Your task to perform on an android device: toggle show notifications on the lock screen Image 0: 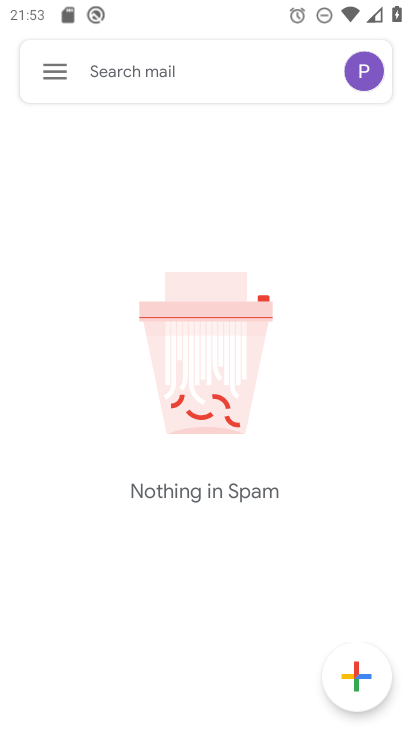
Step 0: press home button
Your task to perform on an android device: toggle show notifications on the lock screen Image 1: 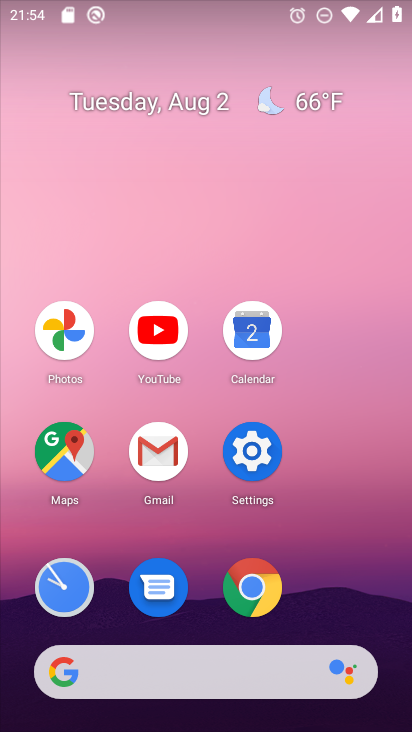
Step 1: click (248, 456)
Your task to perform on an android device: toggle show notifications on the lock screen Image 2: 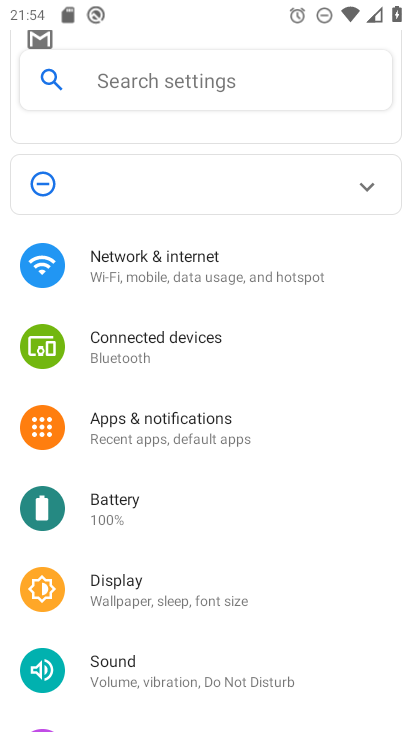
Step 2: click (174, 417)
Your task to perform on an android device: toggle show notifications on the lock screen Image 3: 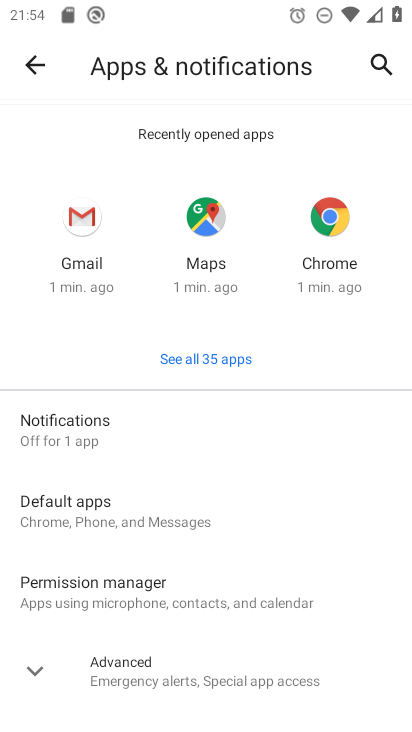
Step 3: click (126, 414)
Your task to perform on an android device: toggle show notifications on the lock screen Image 4: 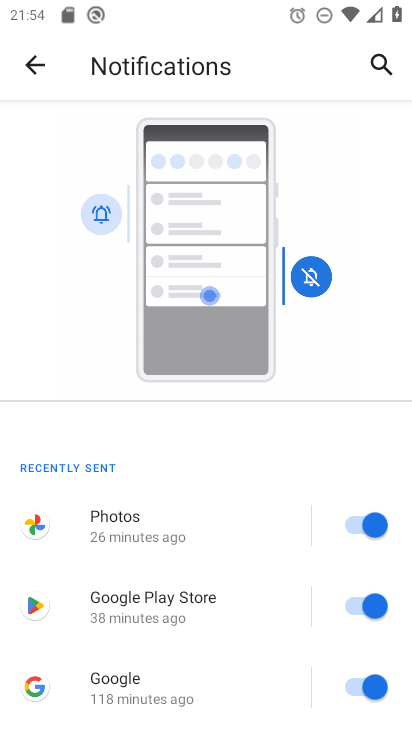
Step 4: drag from (258, 588) to (198, 165)
Your task to perform on an android device: toggle show notifications on the lock screen Image 5: 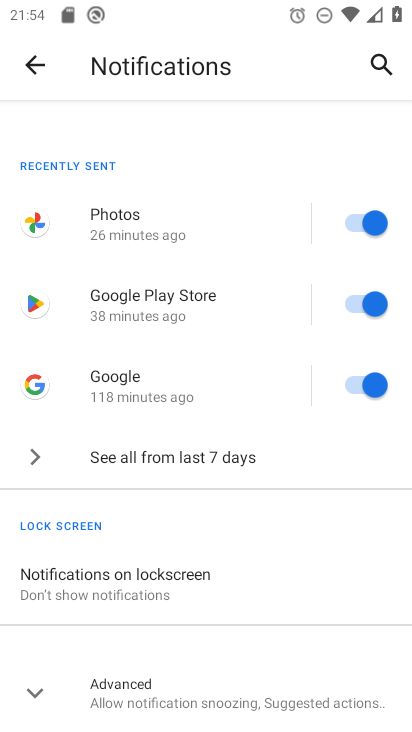
Step 5: click (146, 571)
Your task to perform on an android device: toggle show notifications on the lock screen Image 6: 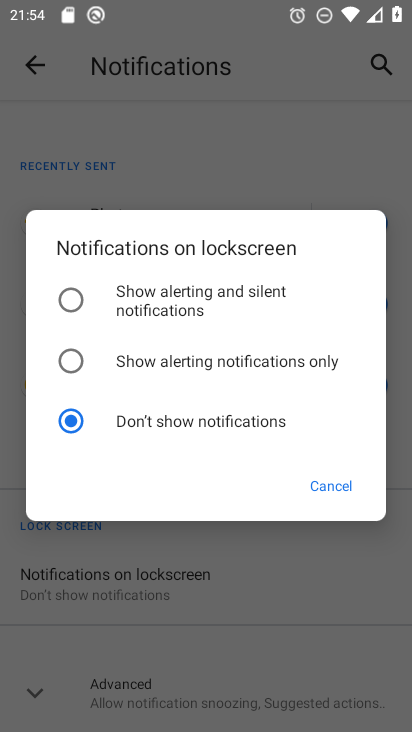
Step 6: click (67, 294)
Your task to perform on an android device: toggle show notifications on the lock screen Image 7: 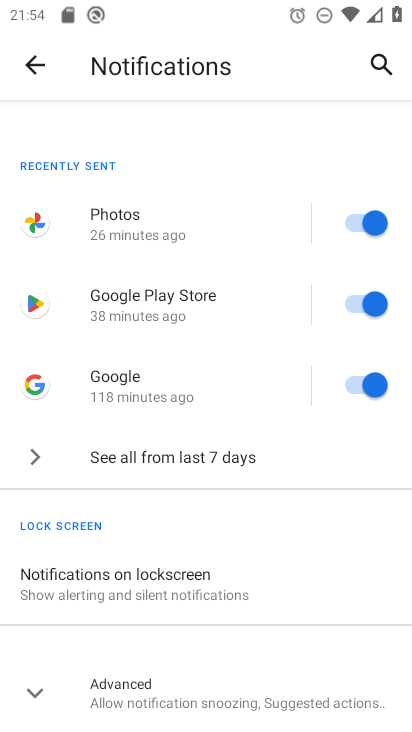
Step 7: task complete